Your task to perform on an android device: check data usage Image 0: 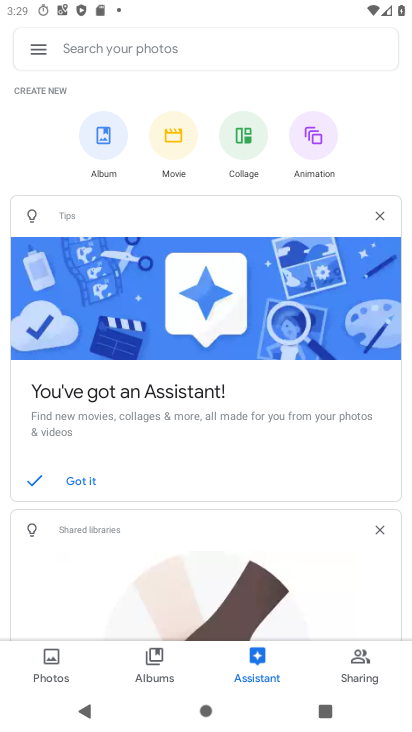
Step 0: press home button
Your task to perform on an android device: check data usage Image 1: 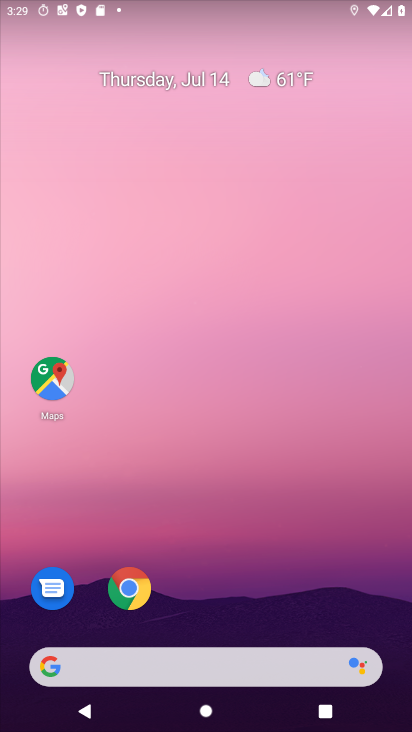
Step 1: drag from (172, 665) to (273, 279)
Your task to perform on an android device: check data usage Image 2: 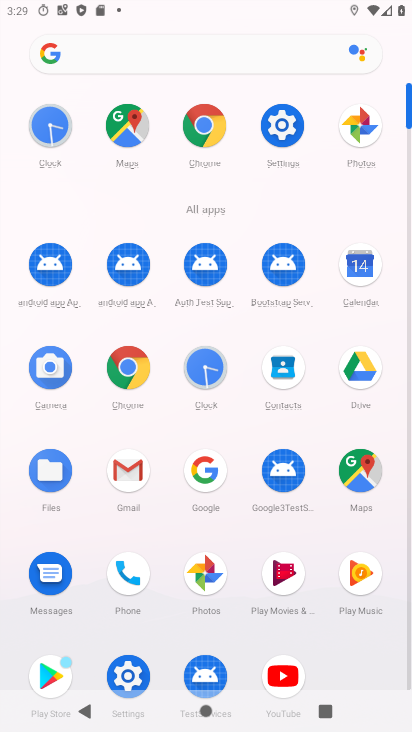
Step 2: click (281, 126)
Your task to perform on an android device: check data usage Image 3: 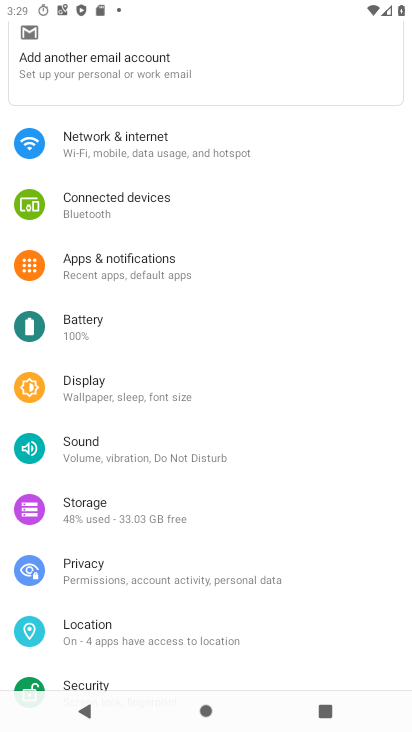
Step 3: click (146, 154)
Your task to perform on an android device: check data usage Image 4: 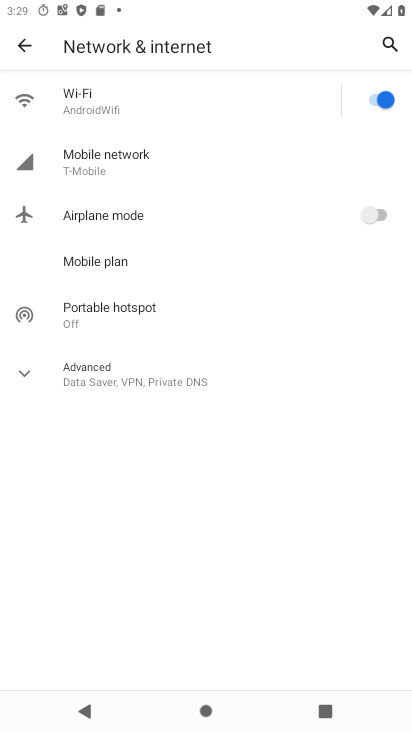
Step 4: click (135, 155)
Your task to perform on an android device: check data usage Image 5: 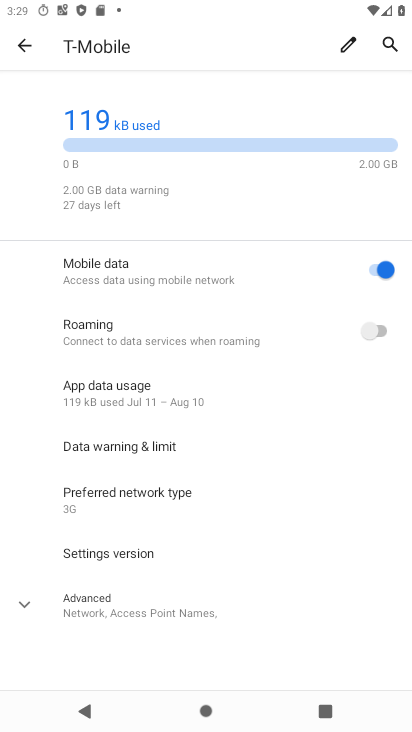
Step 5: task complete